Your task to perform on an android device: create a new album in the google photos Image 0: 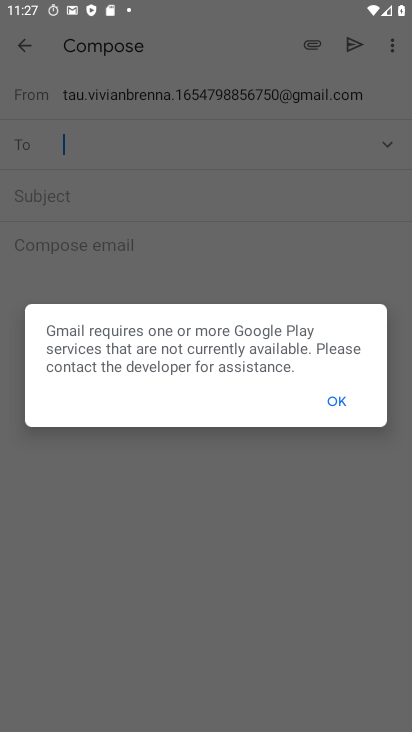
Step 0: press home button
Your task to perform on an android device: create a new album in the google photos Image 1: 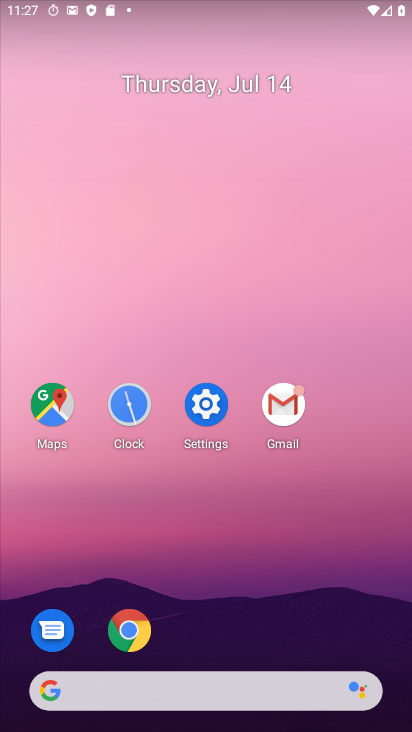
Step 1: drag from (385, 530) to (325, 263)
Your task to perform on an android device: create a new album in the google photos Image 2: 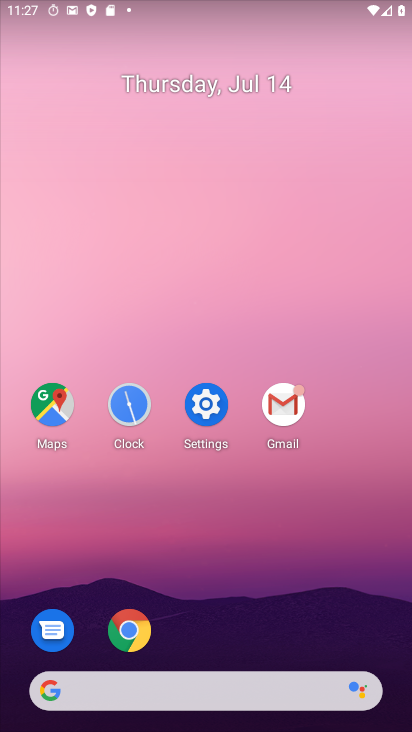
Step 2: drag from (370, 513) to (336, 204)
Your task to perform on an android device: create a new album in the google photos Image 3: 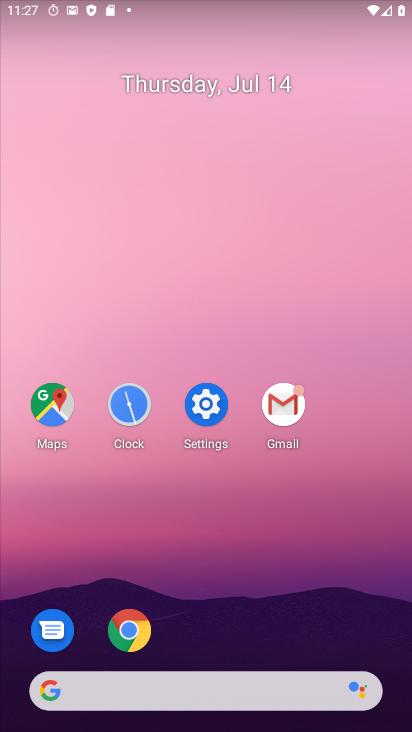
Step 3: drag from (389, 676) to (344, 39)
Your task to perform on an android device: create a new album in the google photos Image 4: 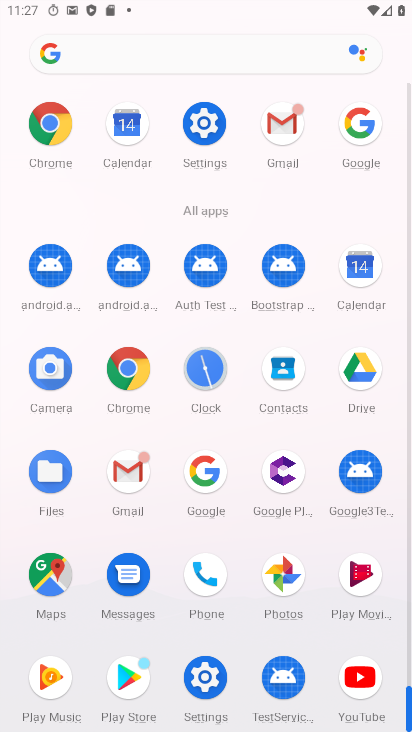
Step 4: click (281, 568)
Your task to perform on an android device: create a new album in the google photos Image 5: 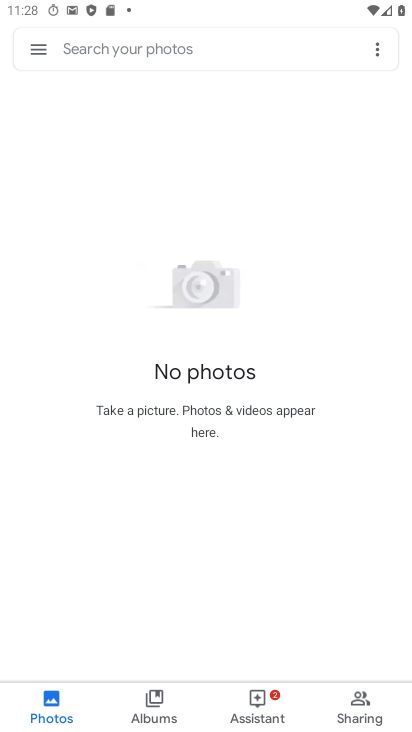
Step 5: click (378, 45)
Your task to perform on an android device: create a new album in the google photos Image 6: 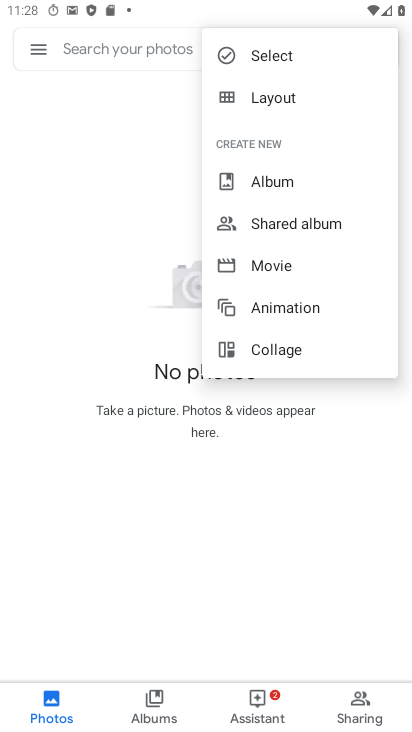
Step 6: click (272, 182)
Your task to perform on an android device: create a new album in the google photos Image 7: 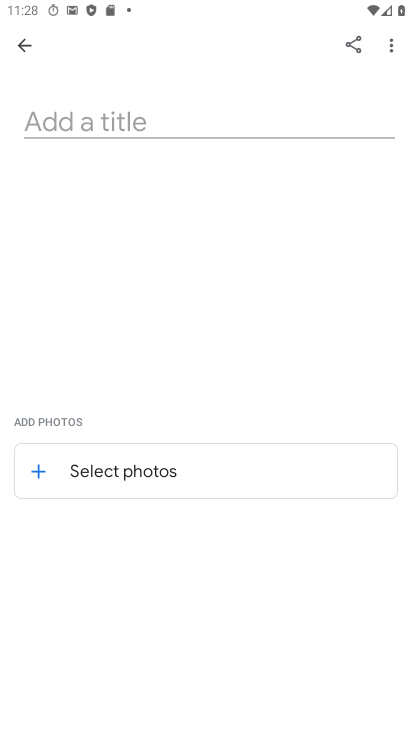
Step 7: click (150, 126)
Your task to perform on an android device: create a new album in the google photos Image 8: 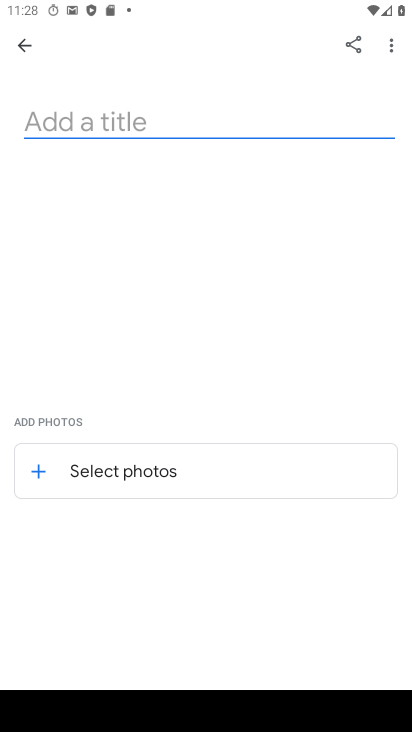
Step 8: type "sfffffb"
Your task to perform on an android device: create a new album in the google photos Image 9: 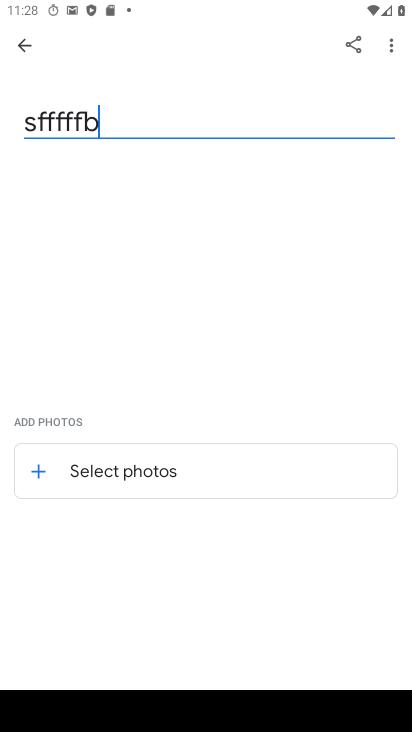
Step 9: click (121, 475)
Your task to perform on an android device: create a new album in the google photos Image 10: 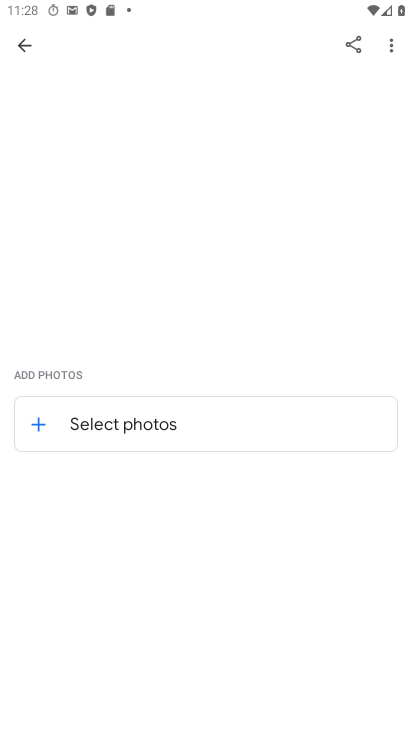
Step 10: task complete